Your task to perform on an android device: check google app version Image 0: 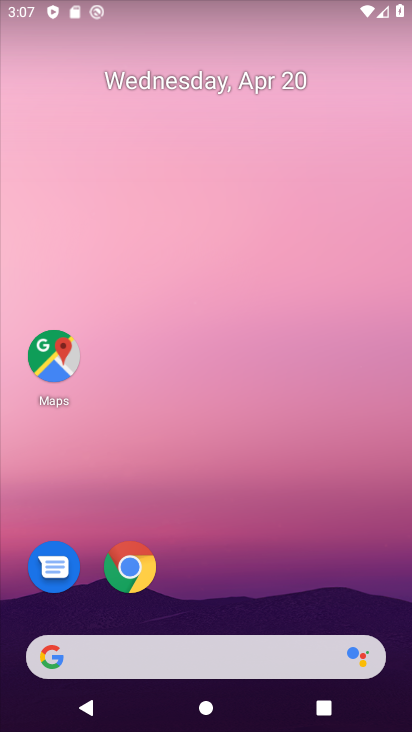
Step 0: click (139, 565)
Your task to perform on an android device: check google app version Image 1: 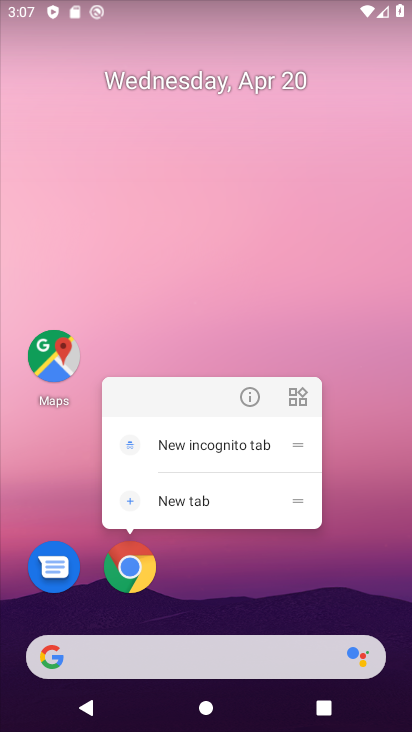
Step 1: click (252, 400)
Your task to perform on an android device: check google app version Image 2: 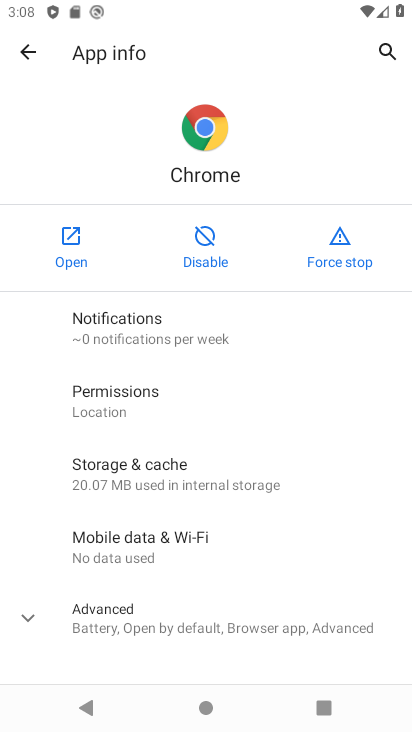
Step 2: click (316, 625)
Your task to perform on an android device: check google app version Image 3: 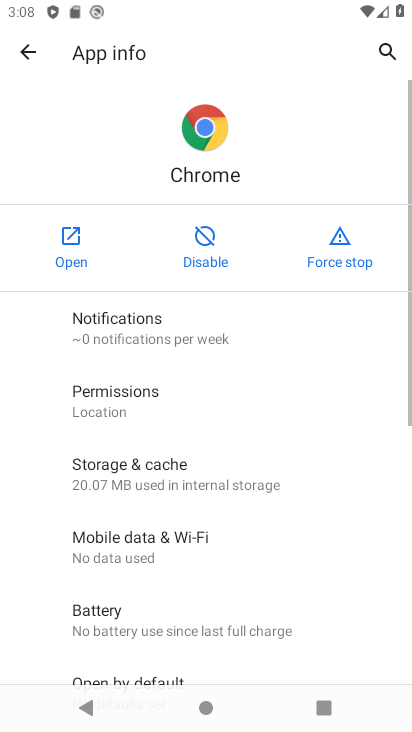
Step 3: task complete